Your task to perform on an android device: turn off wifi Image 0: 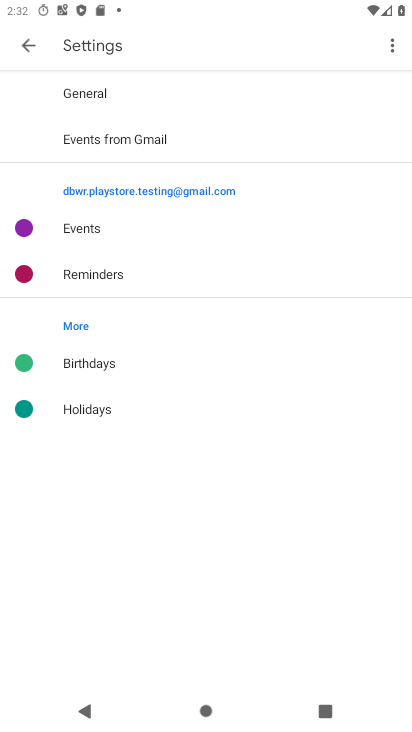
Step 0: press home button
Your task to perform on an android device: turn off wifi Image 1: 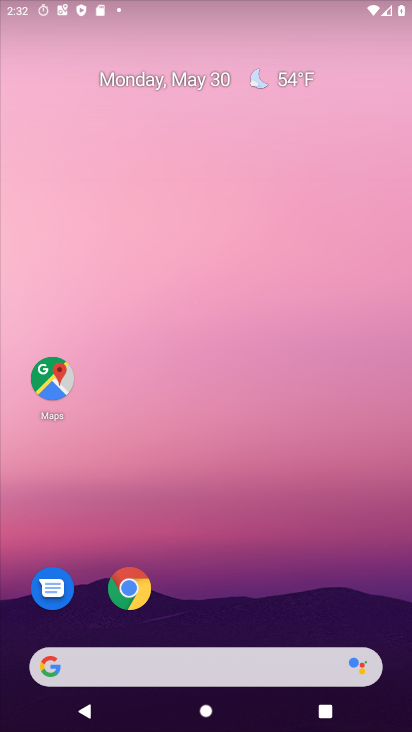
Step 1: drag from (245, 605) to (200, 91)
Your task to perform on an android device: turn off wifi Image 2: 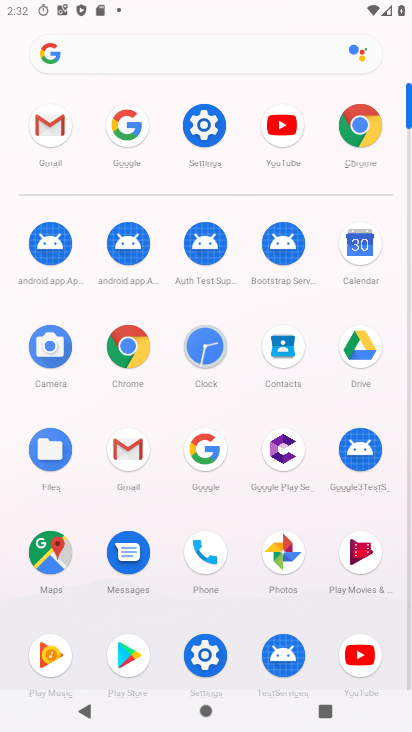
Step 2: click (208, 122)
Your task to perform on an android device: turn off wifi Image 3: 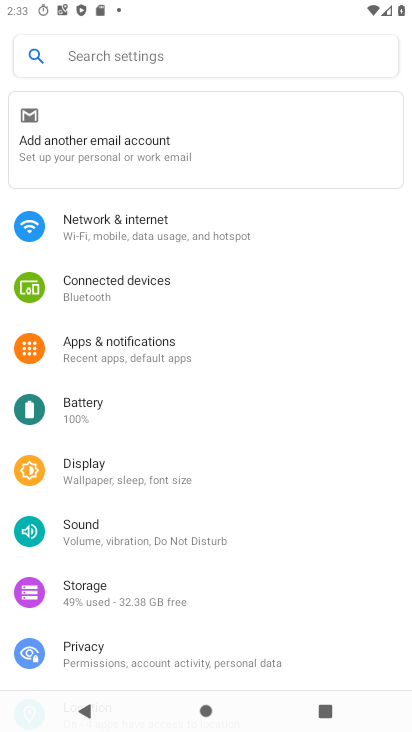
Step 3: click (204, 210)
Your task to perform on an android device: turn off wifi Image 4: 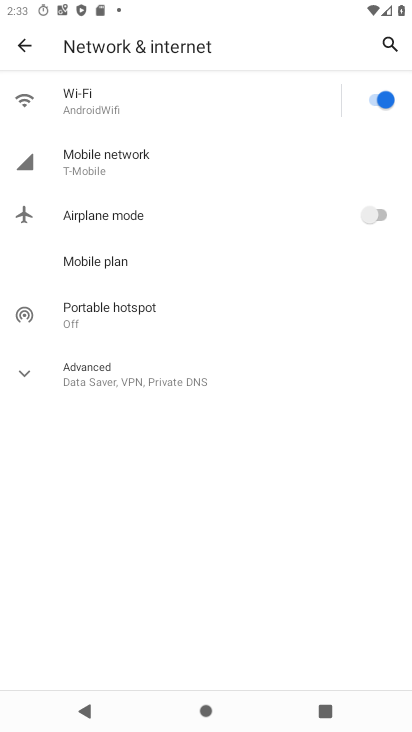
Step 4: click (377, 92)
Your task to perform on an android device: turn off wifi Image 5: 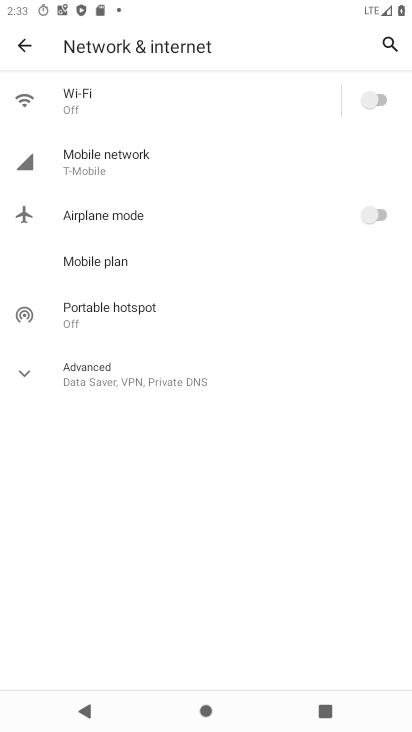
Step 5: task complete